Your task to perform on an android device: check battery use Image 0: 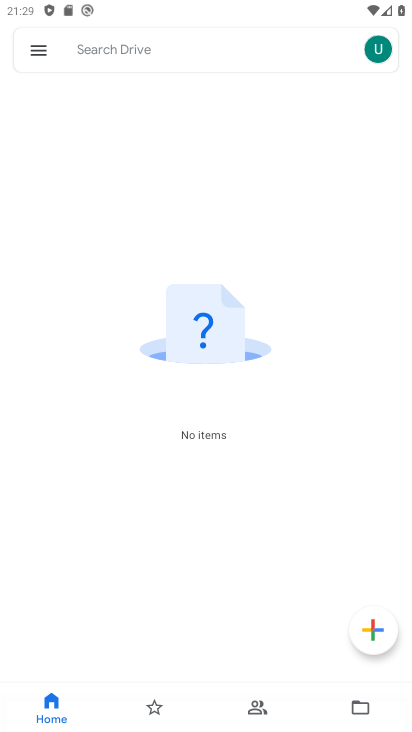
Step 0: press home button
Your task to perform on an android device: check battery use Image 1: 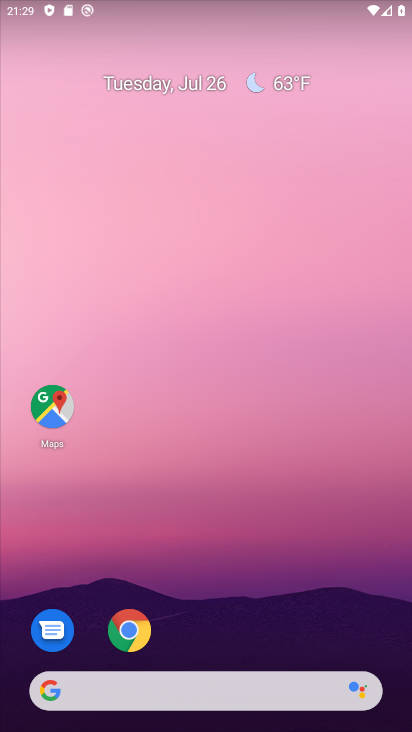
Step 1: drag from (278, 610) to (258, 134)
Your task to perform on an android device: check battery use Image 2: 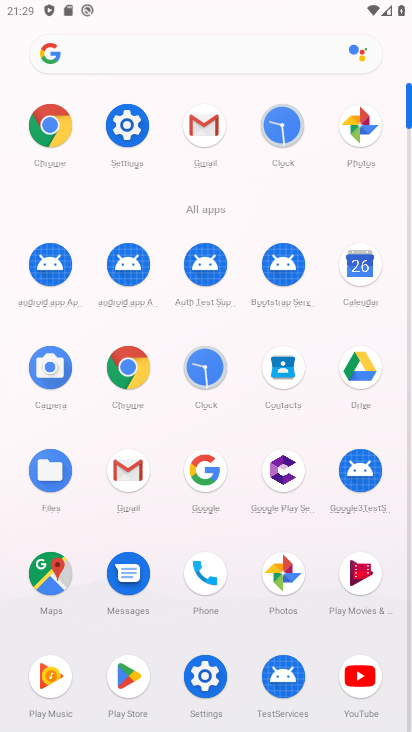
Step 2: click (130, 125)
Your task to perform on an android device: check battery use Image 3: 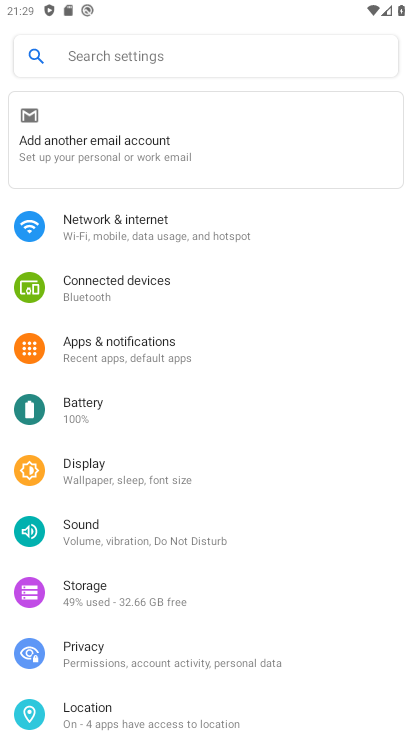
Step 3: click (115, 408)
Your task to perform on an android device: check battery use Image 4: 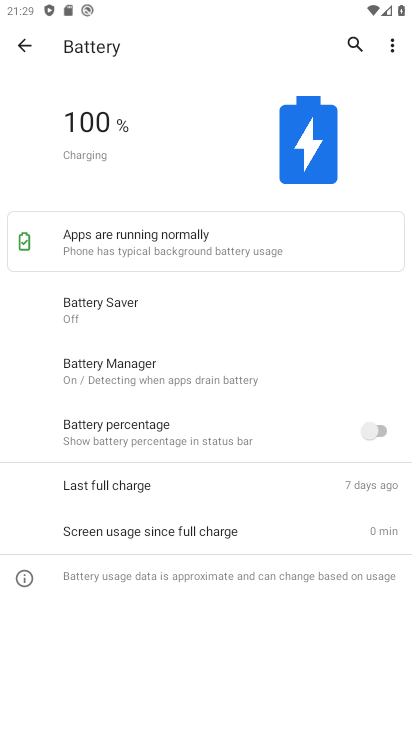
Step 4: click (391, 37)
Your task to perform on an android device: check battery use Image 5: 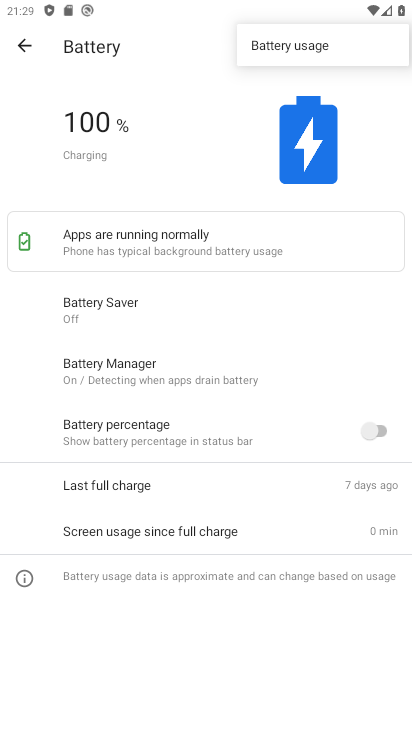
Step 5: click (302, 45)
Your task to perform on an android device: check battery use Image 6: 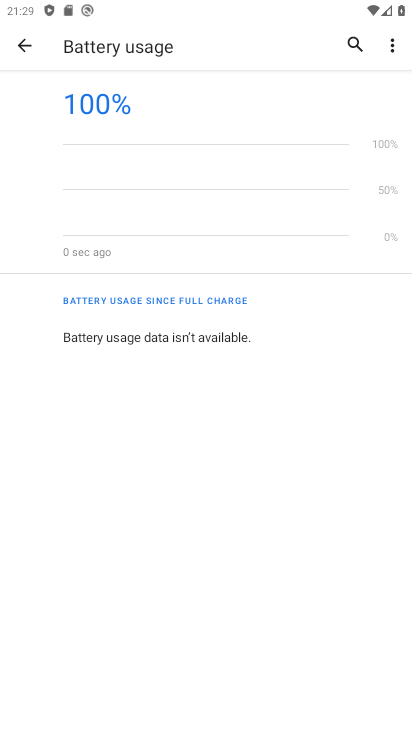
Step 6: task complete